Your task to perform on an android device: check google app version Image 0: 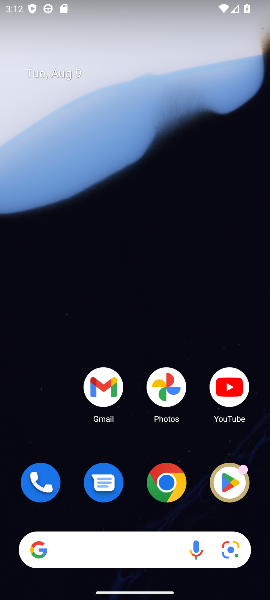
Step 0: drag from (142, 431) to (139, 116)
Your task to perform on an android device: check google app version Image 1: 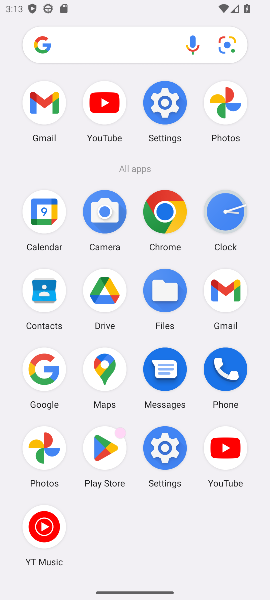
Step 1: click (40, 377)
Your task to perform on an android device: check google app version Image 2: 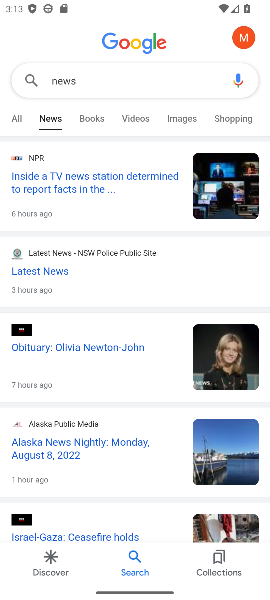
Step 2: click (241, 43)
Your task to perform on an android device: check google app version Image 3: 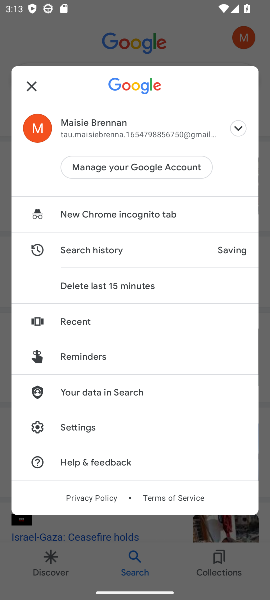
Step 3: click (77, 421)
Your task to perform on an android device: check google app version Image 4: 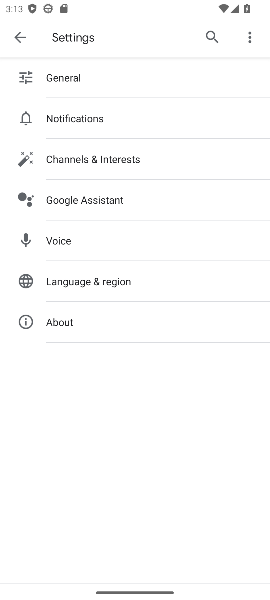
Step 4: click (50, 327)
Your task to perform on an android device: check google app version Image 5: 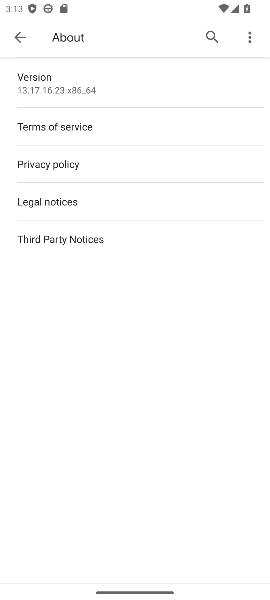
Step 5: click (60, 80)
Your task to perform on an android device: check google app version Image 6: 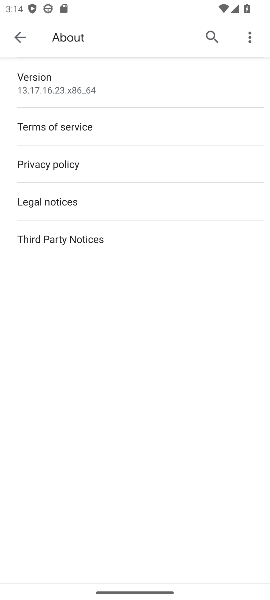
Step 6: click (129, 88)
Your task to perform on an android device: check google app version Image 7: 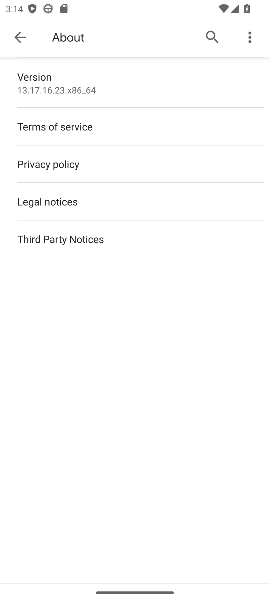
Step 7: task complete